Your task to perform on an android device: turn off sleep mode Image 0: 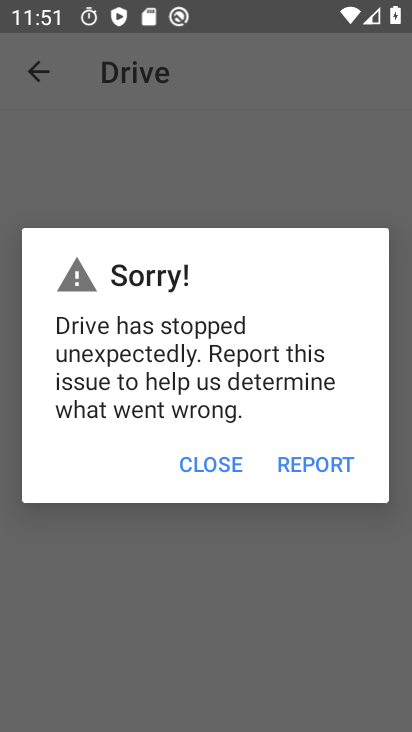
Step 0: press home button
Your task to perform on an android device: turn off sleep mode Image 1: 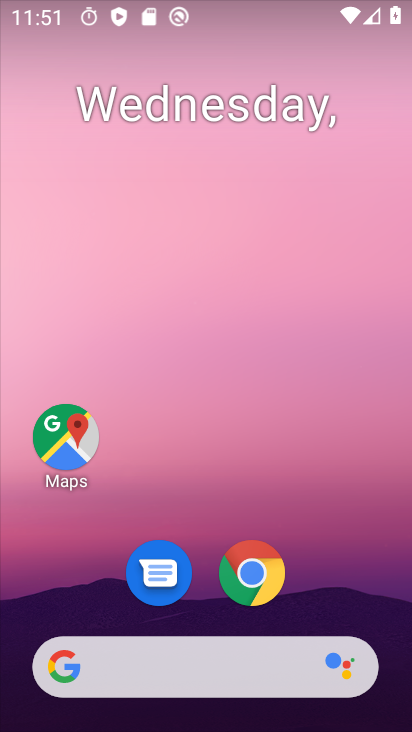
Step 1: drag from (386, 603) to (379, 97)
Your task to perform on an android device: turn off sleep mode Image 2: 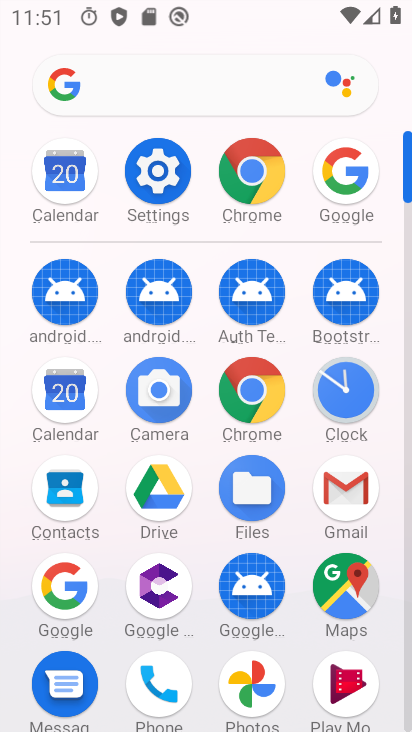
Step 2: click (143, 175)
Your task to perform on an android device: turn off sleep mode Image 3: 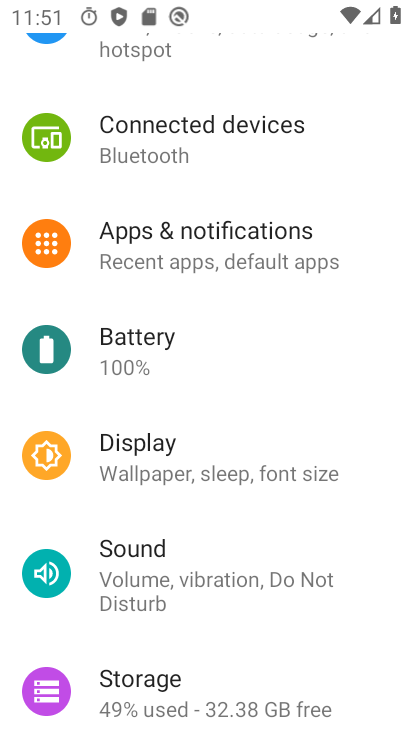
Step 3: click (151, 466)
Your task to perform on an android device: turn off sleep mode Image 4: 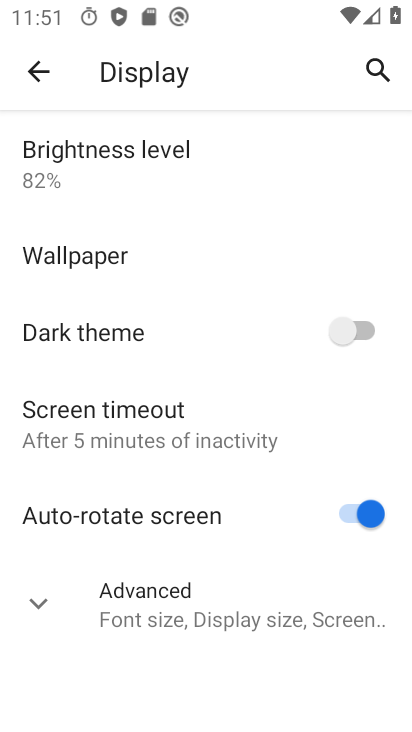
Step 4: click (107, 419)
Your task to perform on an android device: turn off sleep mode Image 5: 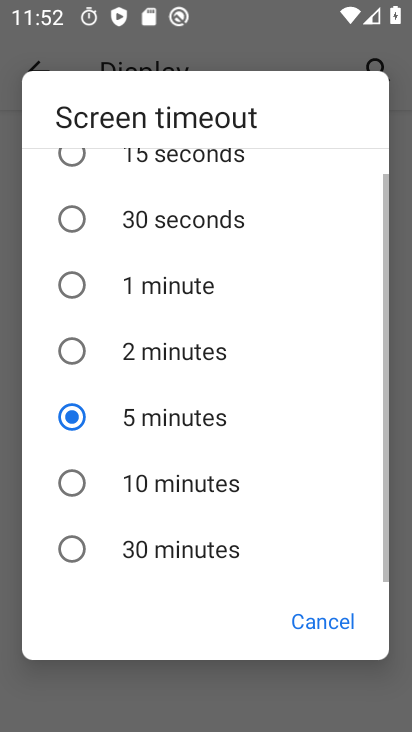
Step 5: task complete